Your task to perform on an android device: open sync settings in chrome Image 0: 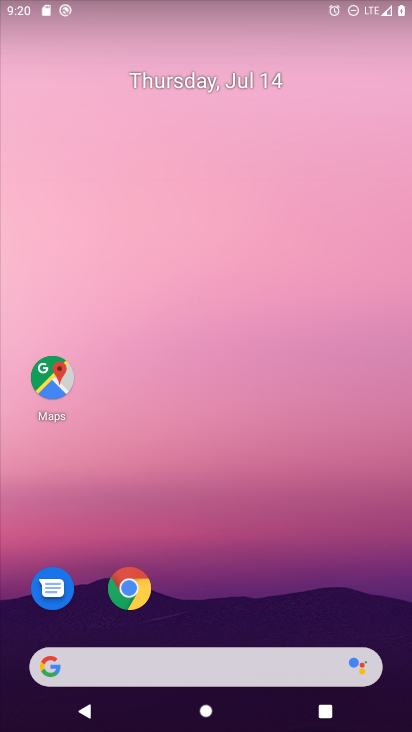
Step 0: drag from (302, 595) to (57, 375)
Your task to perform on an android device: open sync settings in chrome Image 1: 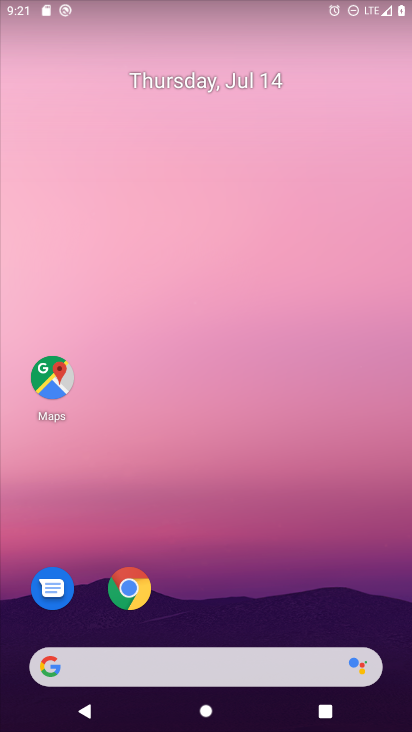
Step 1: drag from (221, 573) to (217, 20)
Your task to perform on an android device: open sync settings in chrome Image 2: 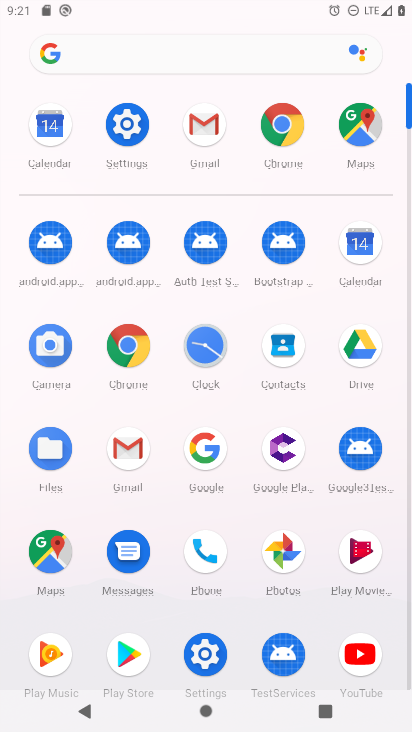
Step 2: click (276, 118)
Your task to perform on an android device: open sync settings in chrome Image 3: 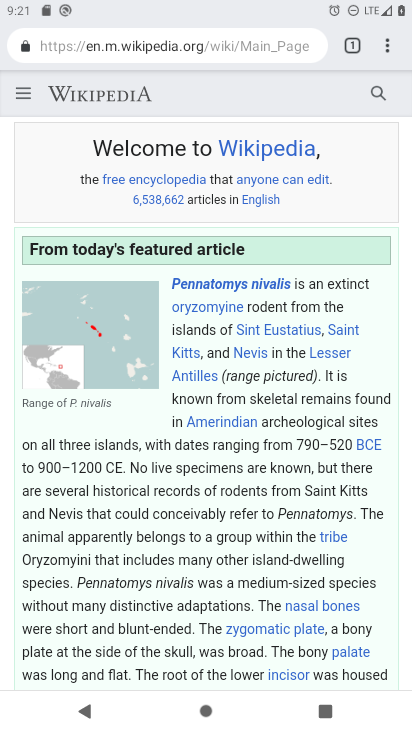
Step 3: drag from (406, 41) to (265, 564)
Your task to perform on an android device: open sync settings in chrome Image 4: 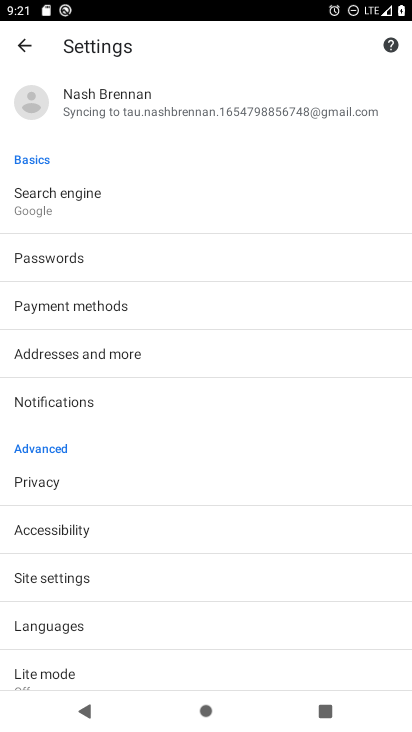
Step 4: click (78, 576)
Your task to perform on an android device: open sync settings in chrome Image 5: 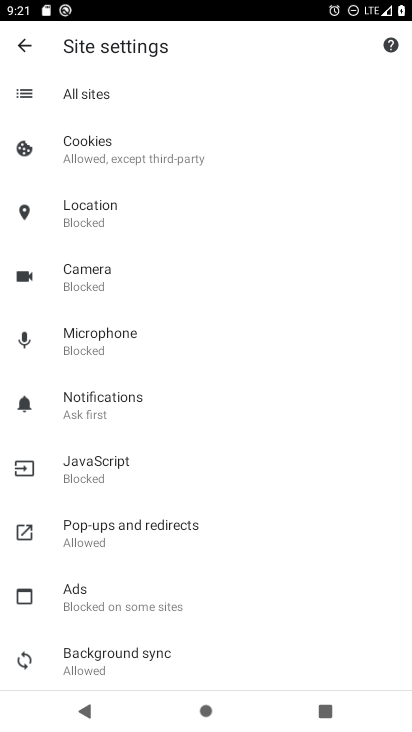
Step 5: drag from (78, 576) to (163, 230)
Your task to perform on an android device: open sync settings in chrome Image 6: 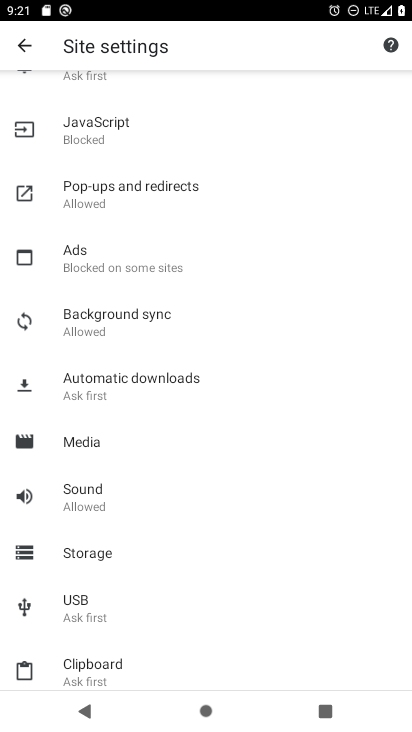
Step 6: click (114, 324)
Your task to perform on an android device: open sync settings in chrome Image 7: 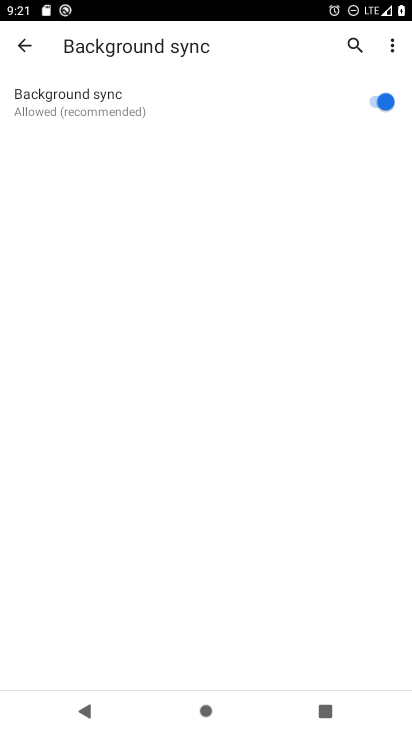
Step 7: task complete